Your task to perform on an android device: toggle location history Image 0: 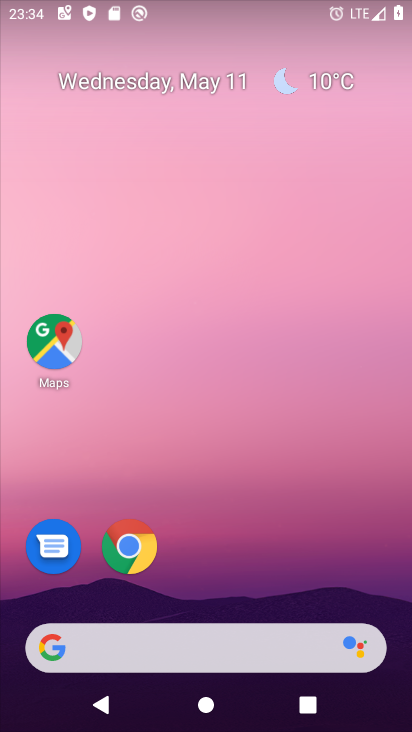
Step 0: click (51, 340)
Your task to perform on an android device: toggle location history Image 1: 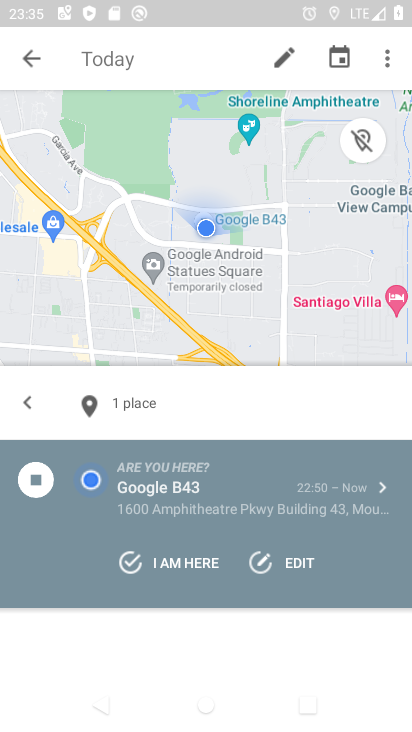
Step 1: press back button
Your task to perform on an android device: toggle location history Image 2: 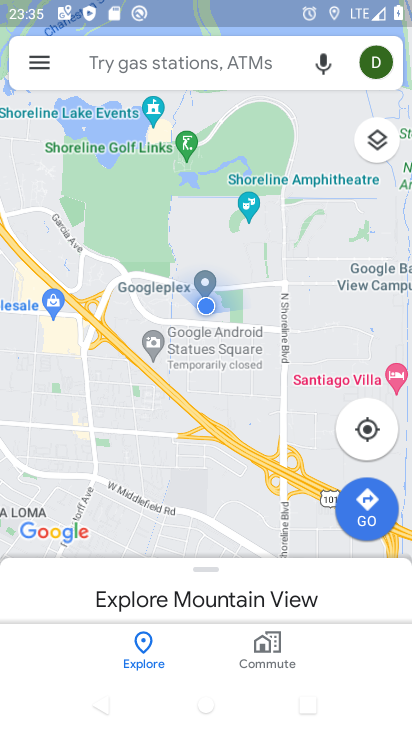
Step 2: click (28, 57)
Your task to perform on an android device: toggle location history Image 3: 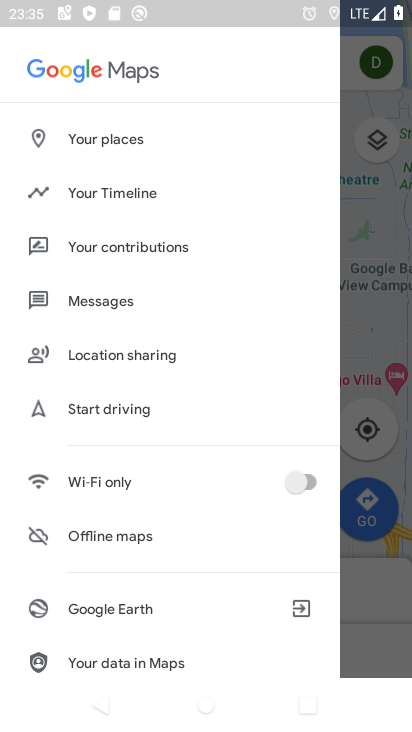
Step 3: drag from (178, 618) to (198, 259)
Your task to perform on an android device: toggle location history Image 4: 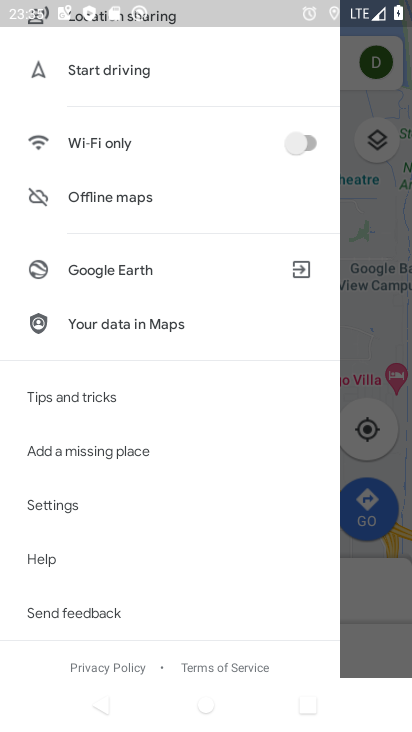
Step 4: click (44, 500)
Your task to perform on an android device: toggle location history Image 5: 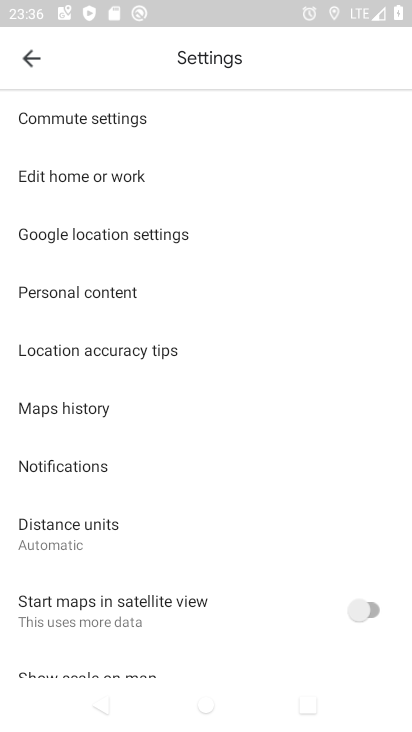
Step 5: click (76, 284)
Your task to perform on an android device: toggle location history Image 6: 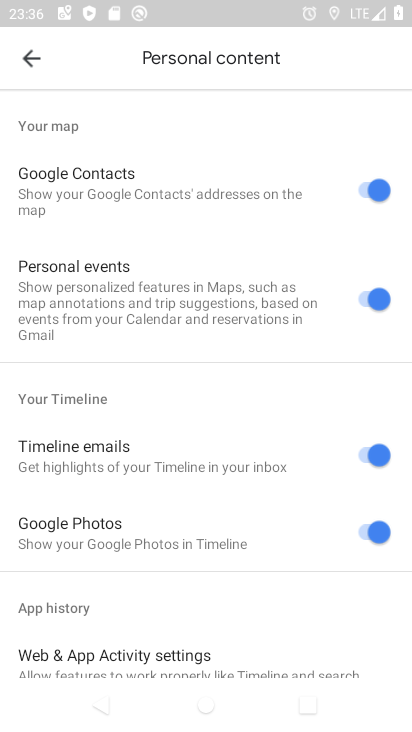
Step 6: drag from (302, 624) to (303, 246)
Your task to perform on an android device: toggle location history Image 7: 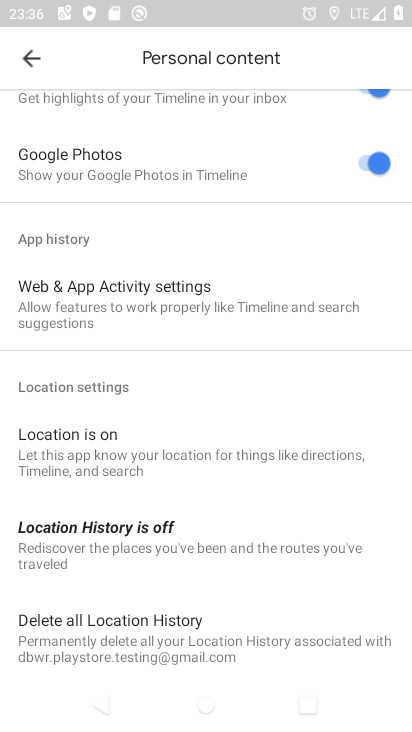
Step 7: click (73, 542)
Your task to perform on an android device: toggle location history Image 8: 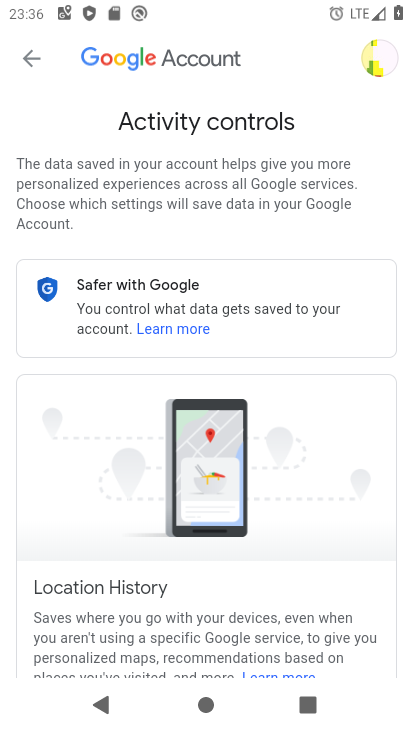
Step 8: drag from (341, 572) to (342, 132)
Your task to perform on an android device: toggle location history Image 9: 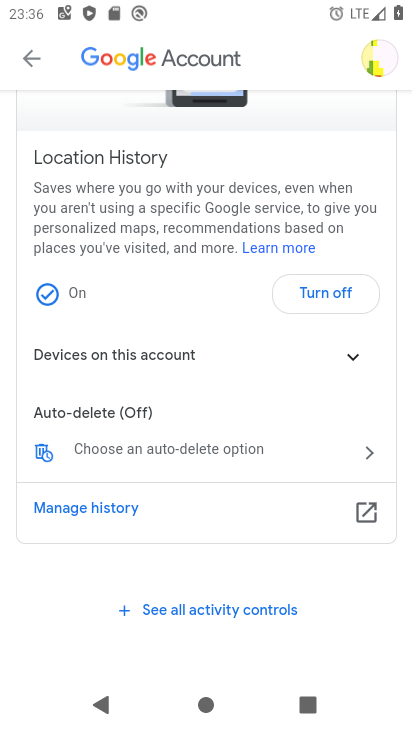
Step 9: click (322, 288)
Your task to perform on an android device: toggle location history Image 10: 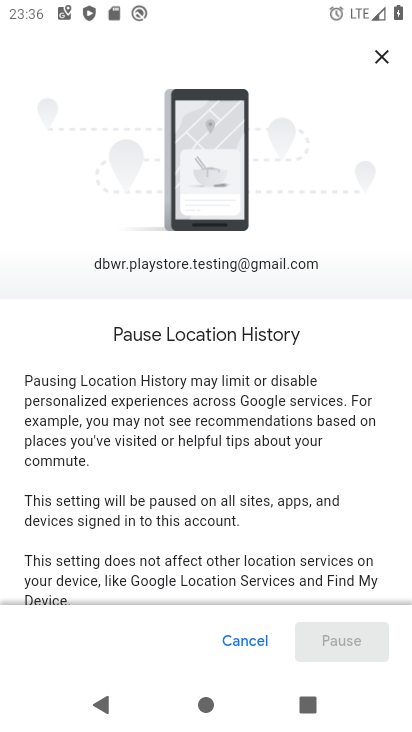
Step 10: drag from (290, 558) to (290, 102)
Your task to perform on an android device: toggle location history Image 11: 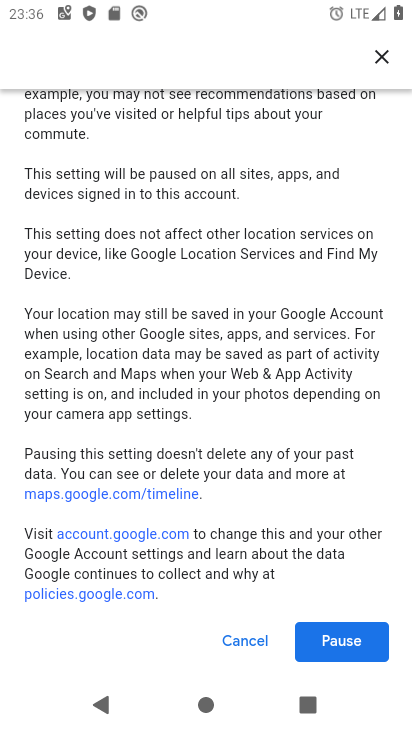
Step 11: click (337, 638)
Your task to perform on an android device: toggle location history Image 12: 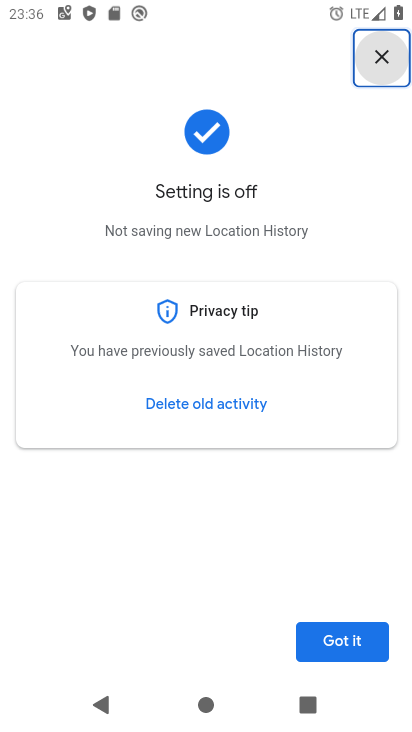
Step 12: click (336, 634)
Your task to perform on an android device: toggle location history Image 13: 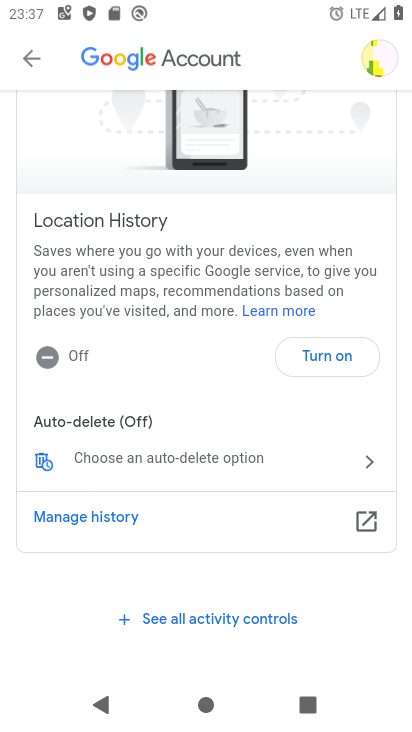
Step 13: task complete